Your task to perform on an android device: open wifi settings Image 0: 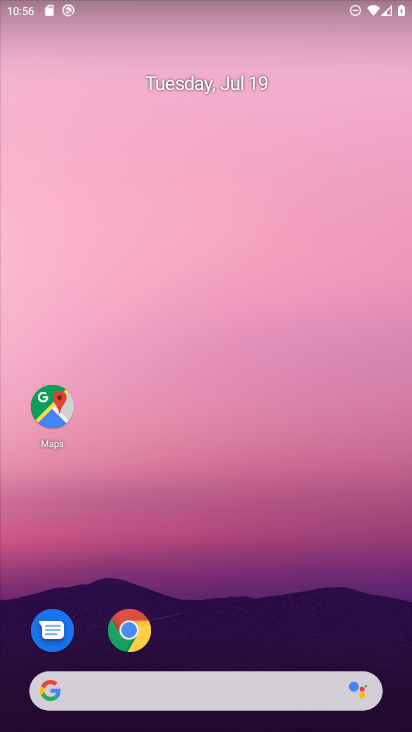
Step 0: drag from (210, 618) to (149, 164)
Your task to perform on an android device: open wifi settings Image 1: 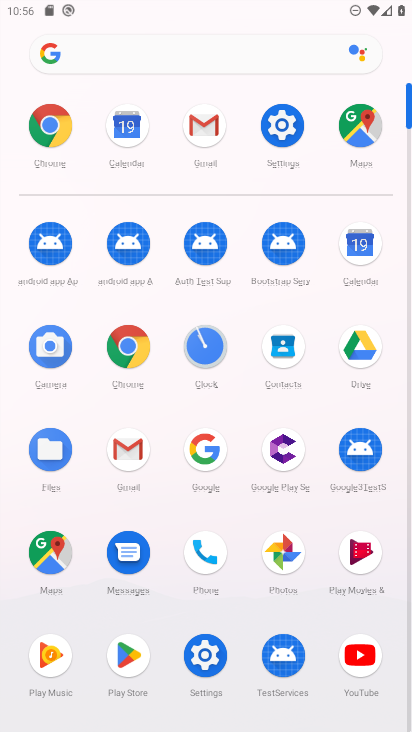
Step 1: click (272, 124)
Your task to perform on an android device: open wifi settings Image 2: 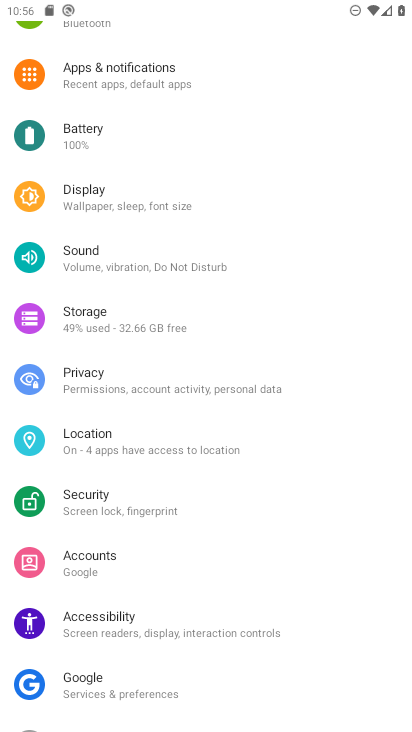
Step 2: drag from (166, 268) to (186, 534)
Your task to perform on an android device: open wifi settings Image 3: 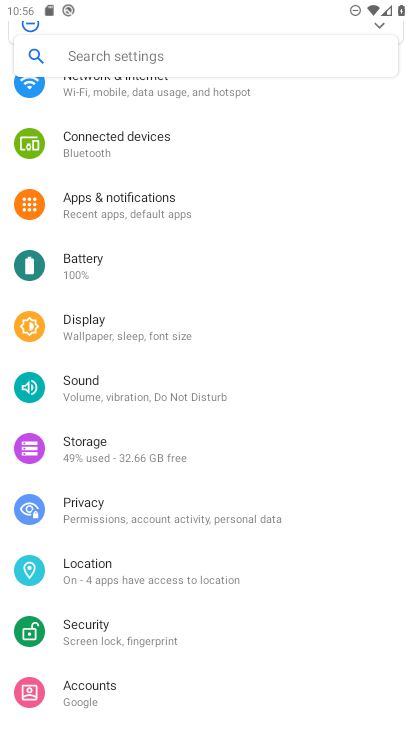
Step 3: drag from (96, 160) to (140, 405)
Your task to perform on an android device: open wifi settings Image 4: 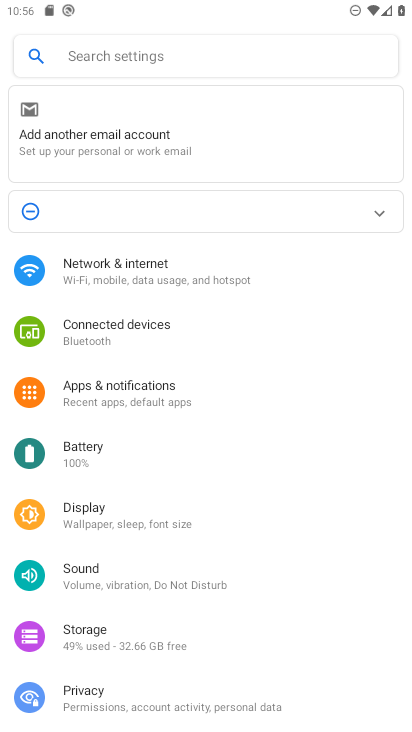
Step 4: click (106, 262)
Your task to perform on an android device: open wifi settings Image 5: 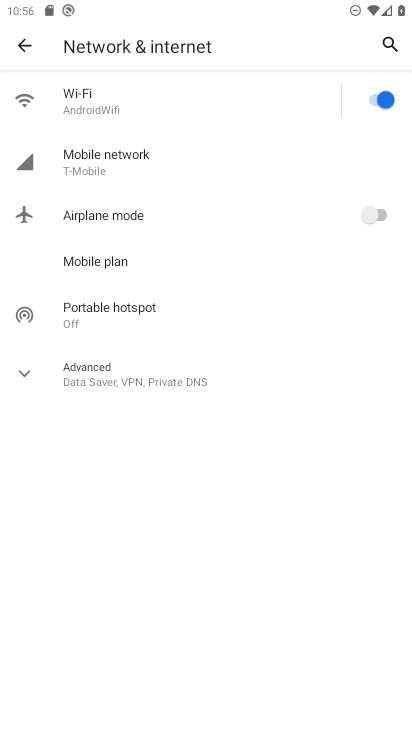
Step 5: click (114, 113)
Your task to perform on an android device: open wifi settings Image 6: 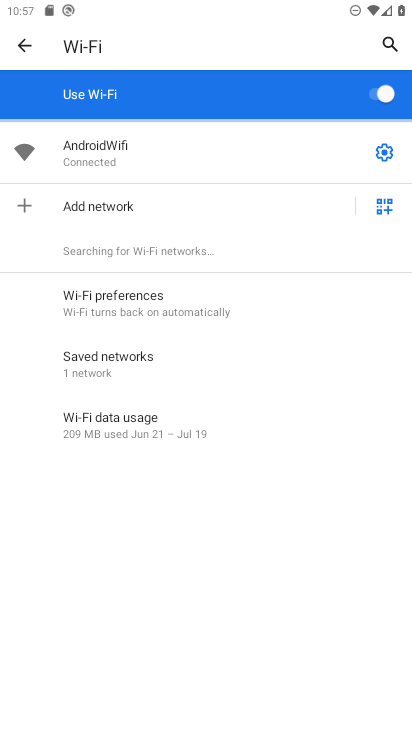
Step 6: task complete